Your task to perform on an android device: Go to internet settings Image 0: 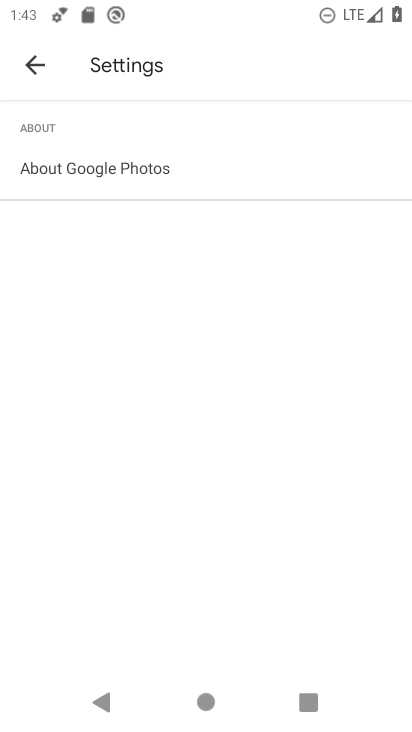
Step 0: press home button
Your task to perform on an android device: Go to internet settings Image 1: 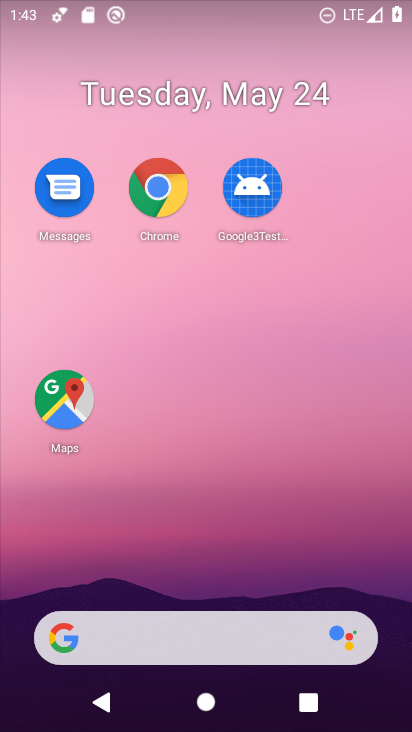
Step 1: click (159, 227)
Your task to perform on an android device: Go to internet settings Image 2: 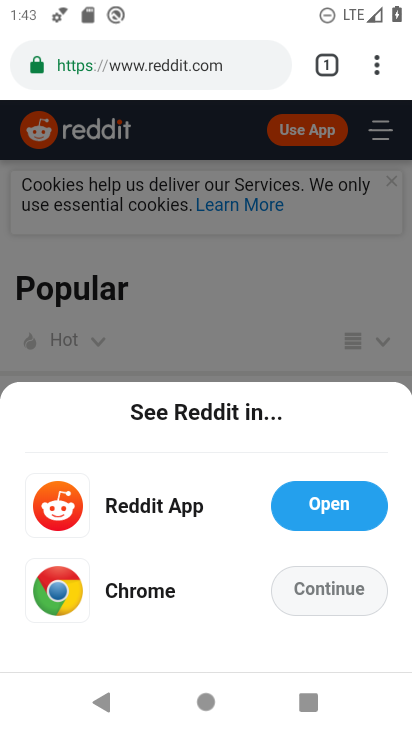
Step 2: press home button
Your task to perform on an android device: Go to internet settings Image 3: 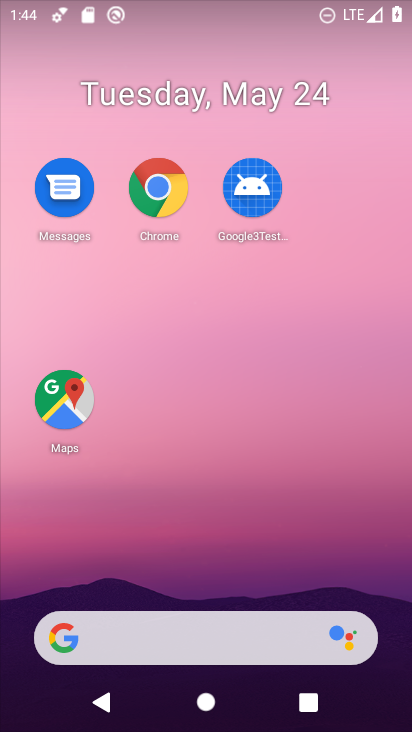
Step 3: drag from (182, 518) to (245, 9)
Your task to perform on an android device: Go to internet settings Image 4: 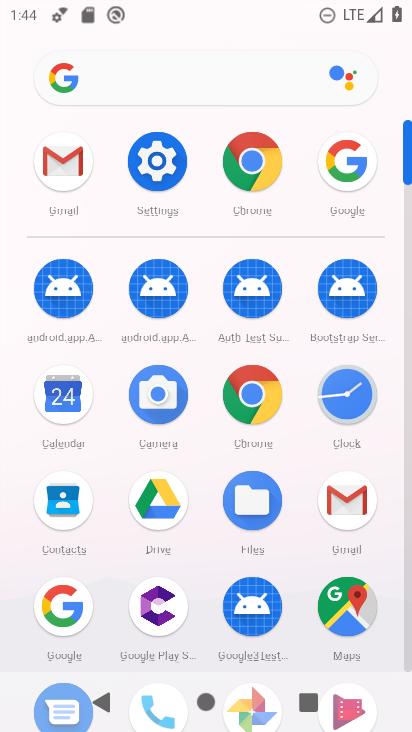
Step 4: click (157, 164)
Your task to perform on an android device: Go to internet settings Image 5: 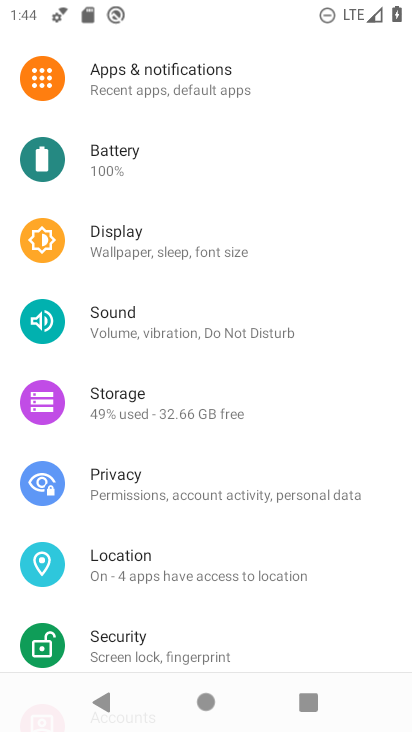
Step 5: click (149, 655)
Your task to perform on an android device: Go to internet settings Image 6: 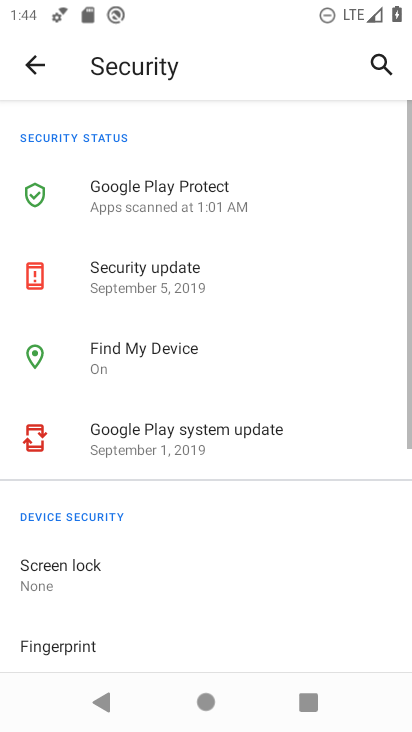
Step 6: click (20, 69)
Your task to perform on an android device: Go to internet settings Image 7: 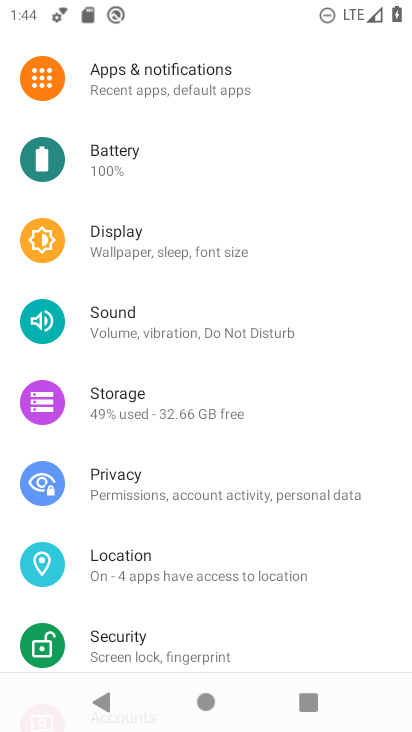
Step 7: drag from (159, 148) to (165, 728)
Your task to perform on an android device: Go to internet settings Image 8: 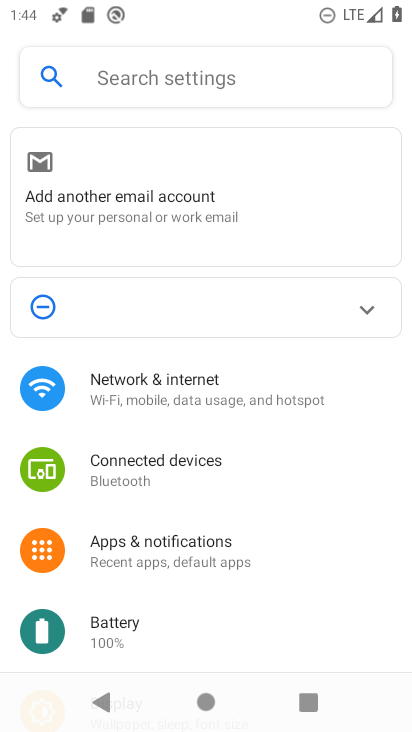
Step 8: click (141, 403)
Your task to perform on an android device: Go to internet settings Image 9: 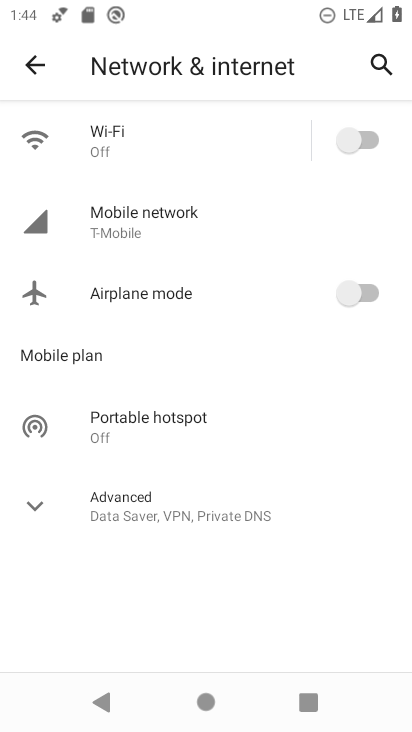
Step 9: task complete